Your task to perform on an android device: toggle priority inbox in the gmail app Image 0: 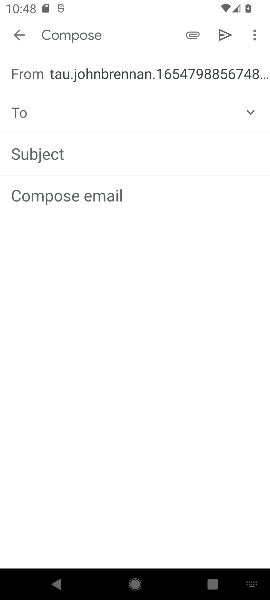
Step 0: press home button
Your task to perform on an android device: toggle priority inbox in the gmail app Image 1: 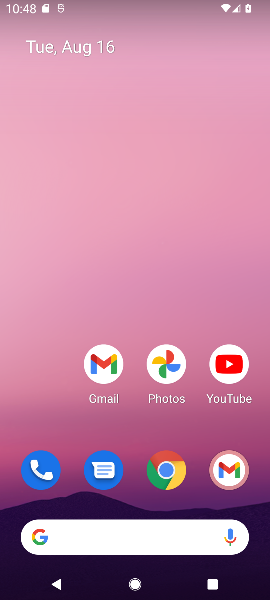
Step 1: click (101, 365)
Your task to perform on an android device: toggle priority inbox in the gmail app Image 2: 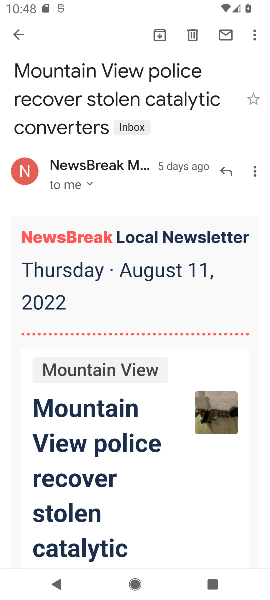
Step 2: click (20, 30)
Your task to perform on an android device: toggle priority inbox in the gmail app Image 3: 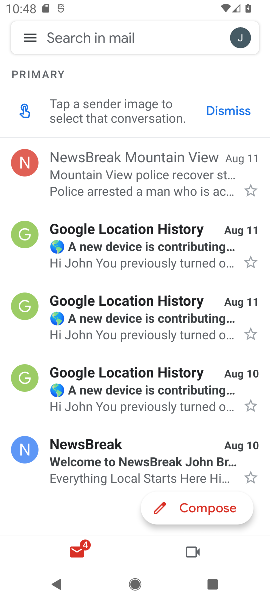
Step 3: click (31, 28)
Your task to perform on an android device: toggle priority inbox in the gmail app Image 4: 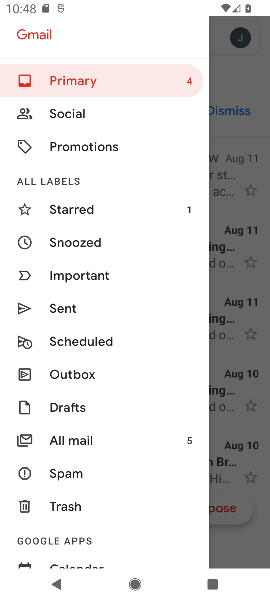
Step 4: drag from (86, 422) to (159, 47)
Your task to perform on an android device: toggle priority inbox in the gmail app Image 5: 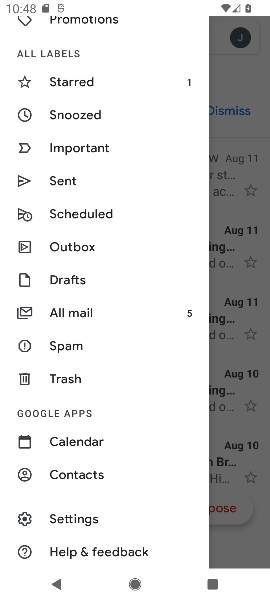
Step 5: click (75, 510)
Your task to perform on an android device: toggle priority inbox in the gmail app Image 6: 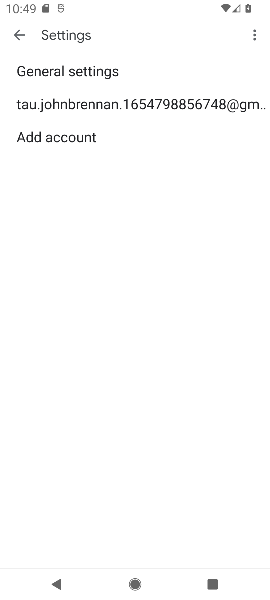
Step 6: click (163, 103)
Your task to perform on an android device: toggle priority inbox in the gmail app Image 7: 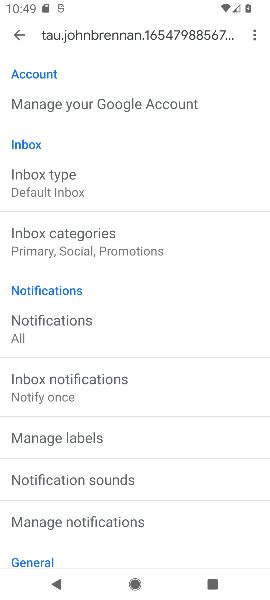
Step 7: click (75, 185)
Your task to perform on an android device: toggle priority inbox in the gmail app Image 8: 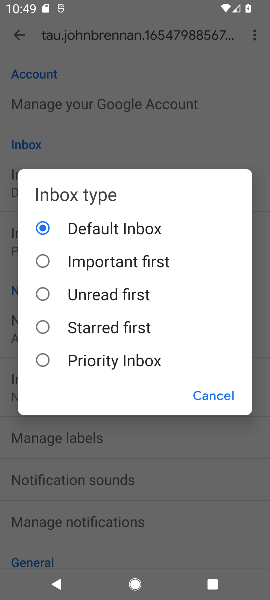
Step 8: click (41, 351)
Your task to perform on an android device: toggle priority inbox in the gmail app Image 9: 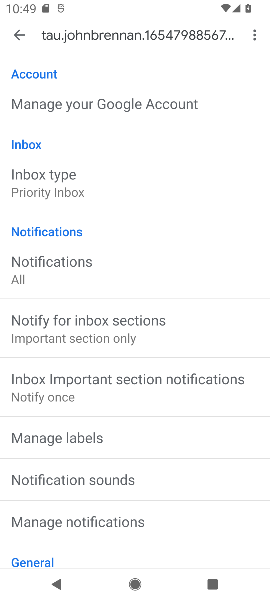
Step 9: task complete